Your task to perform on an android device: Open calendar and show me the first week of next month Image 0: 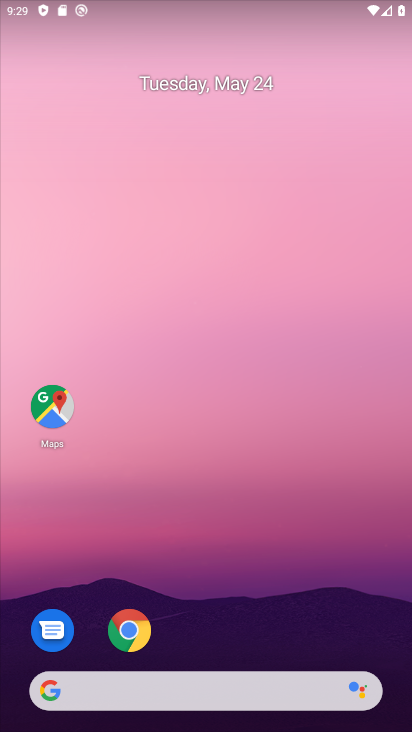
Step 0: press home button
Your task to perform on an android device: Open calendar and show me the first week of next month Image 1: 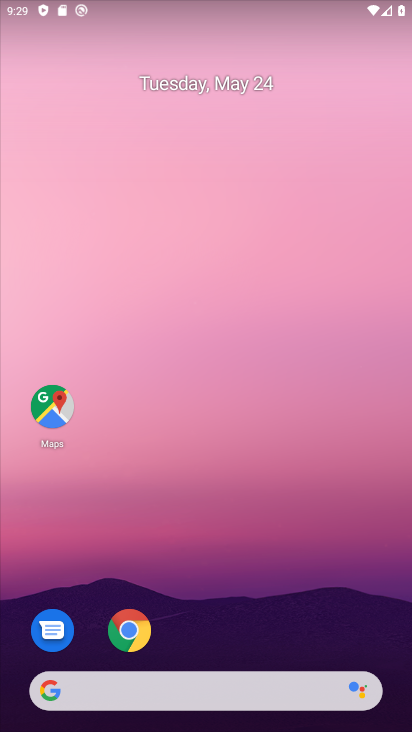
Step 1: drag from (213, 646) to (253, 130)
Your task to perform on an android device: Open calendar and show me the first week of next month Image 2: 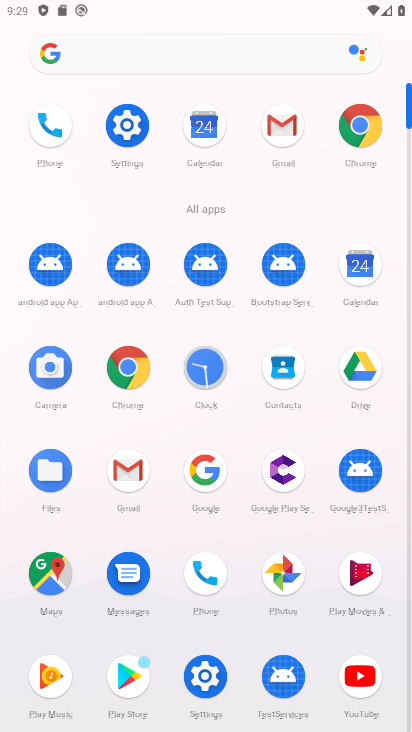
Step 2: click (207, 119)
Your task to perform on an android device: Open calendar and show me the first week of next month Image 3: 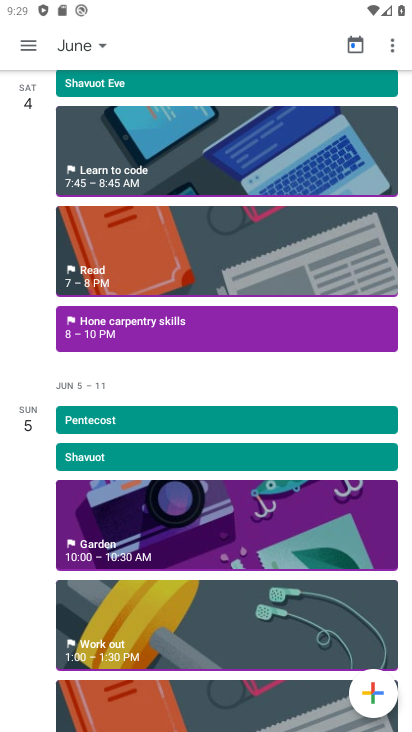
Step 3: task complete